Your task to perform on an android device: check google app version Image 0: 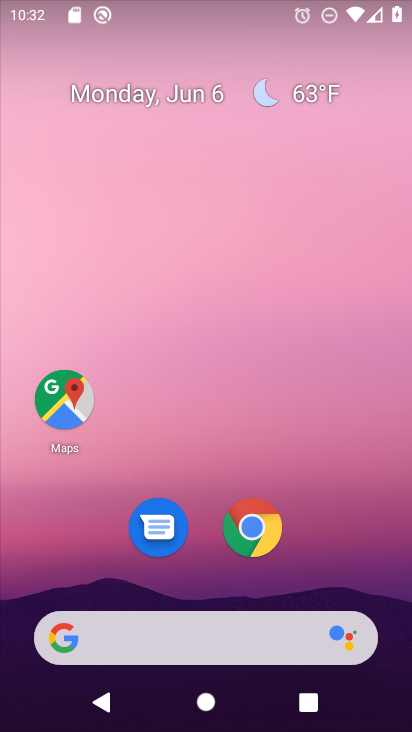
Step 0: drag from (358, 561) to (353, 207)
Your task to perform on an android device: check google app version Image 1: 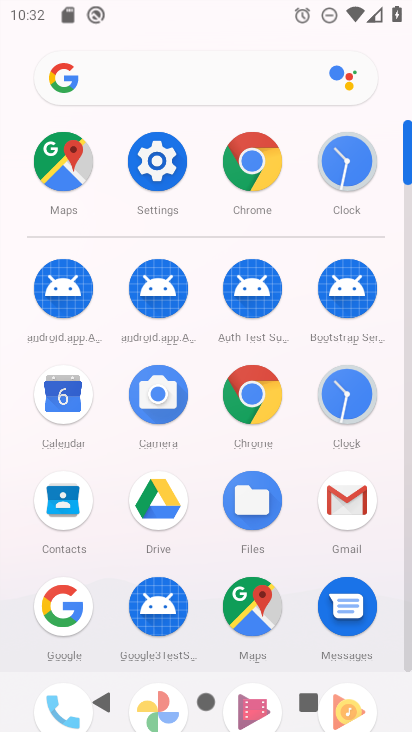
Step 1: click (64, 611)
Your task to perform on an android device: check google app version Image 2: 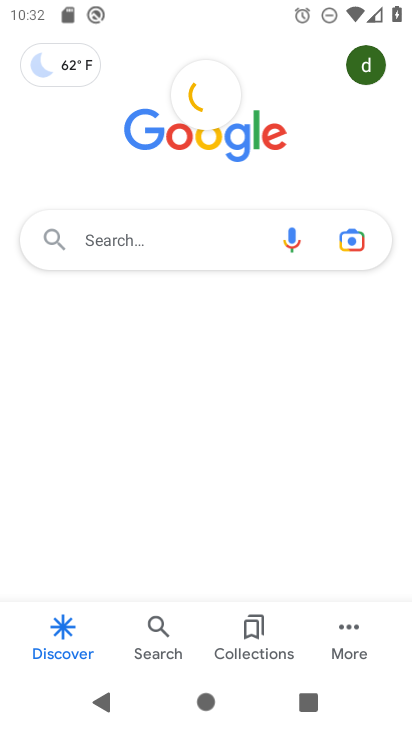
Step 2: click (351, 635)
Your task to perform on an android device: check google app version Image 3: 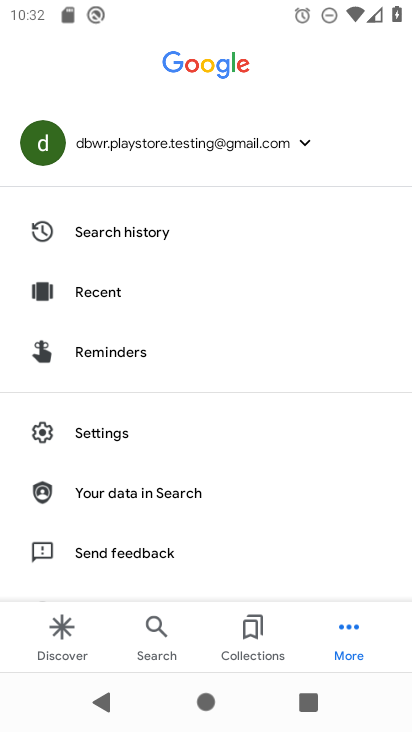
Step 3: drag from (311, 505) to (314, 382)
Your task to perform on an android device: check google app version Image 4: 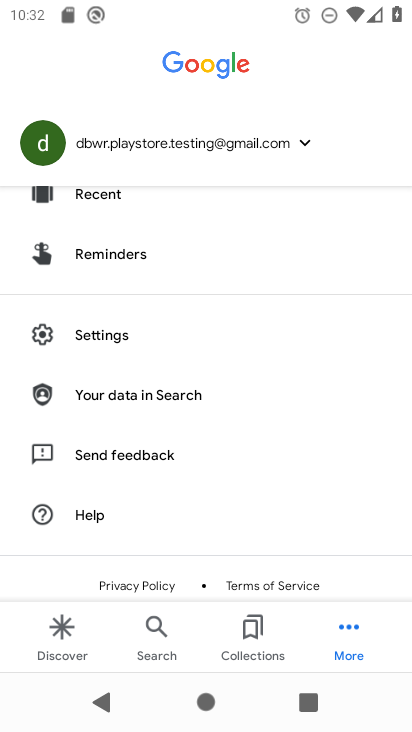
Step 4: drag from (264, 498) to (262, 305)
Your task to perform on an android device: check google app version Image 5: 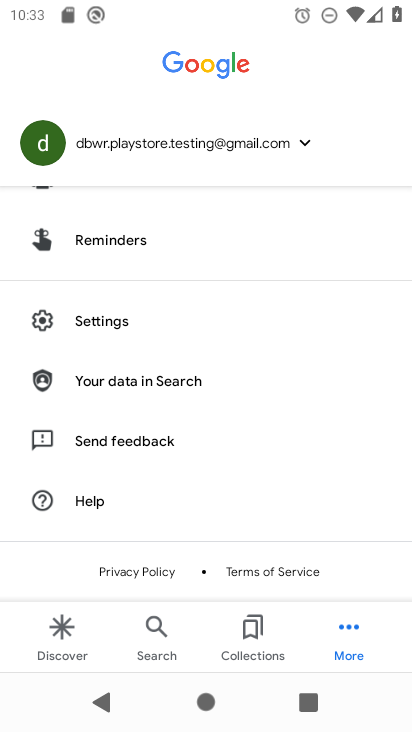
Step 5: click (112, 328)
Your task to perform on an android device: check google app version Image 6: 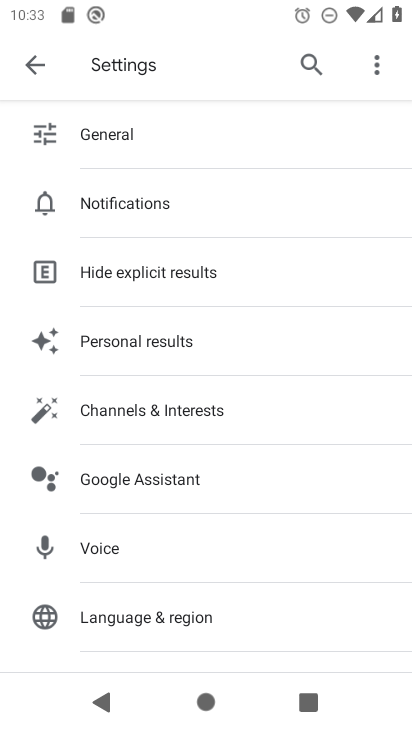
Step 6: drag from (308, 510) to (312, 405)
Your task to perform on an android device: check google app version Image 7: 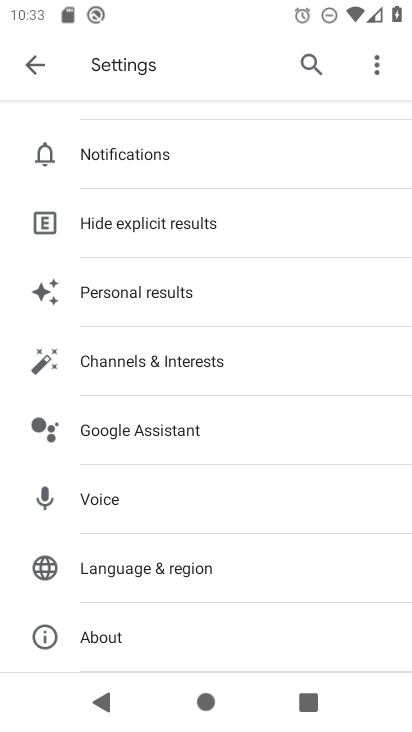
Step 7: drag from (307, 526) to (302, 390)
Your task to perform on an android device: check google app version Image 8: 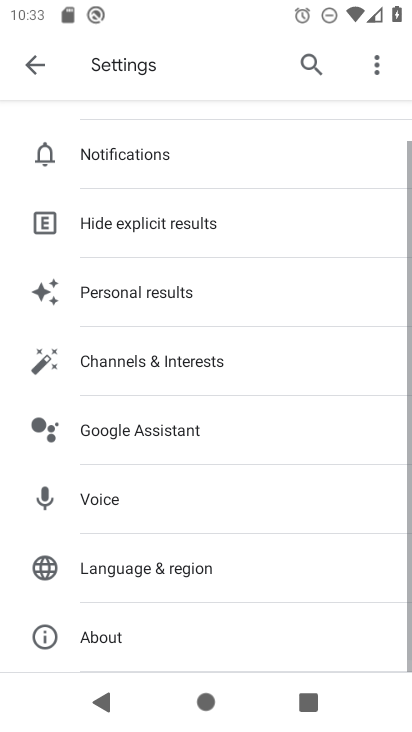
Step 8: click (231, 637)
Your task to perform on an android device: check google app version Image 9: 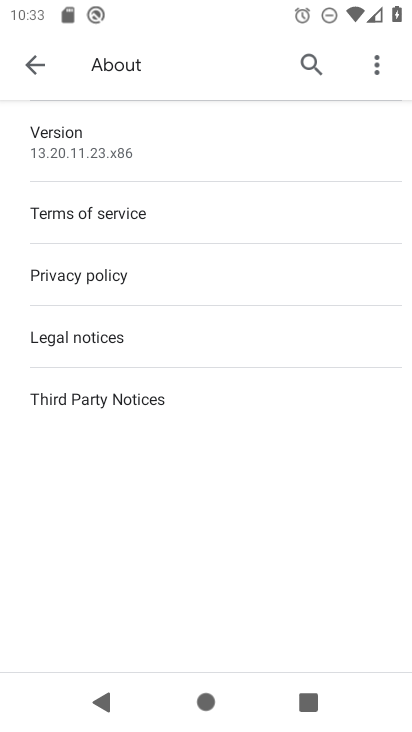
Step 9: task complete